Your task to perform on an android device: What's the weather going to be tomorrow? Image 0: 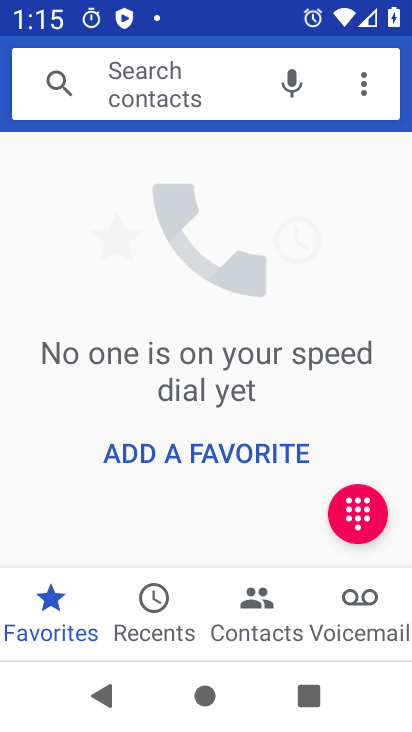
Step 0: press home button
Your task to perform on an android device: What's the weather going to be tomorrow? Image 1: 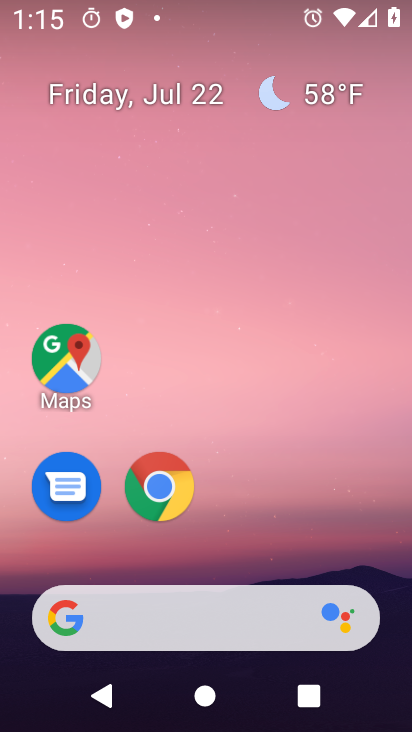
Step 1: click (255, 614)
Your task to perform on an android device: What's the weather going to be tomorrow? Image 2: 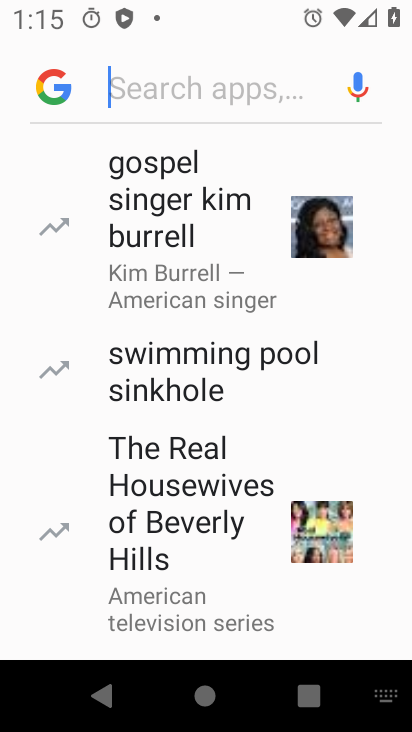
Step 2: type "weatger"
Your task to perform on an android device: What's the weather going to be tomorrow? Image 3: 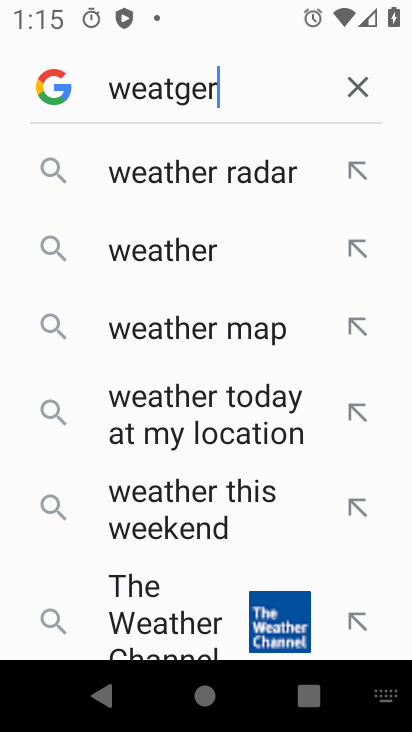
Step 3: click (247, 264)
Your task to perform on an android device: What's the weather going to be tomorrow? Image 4: 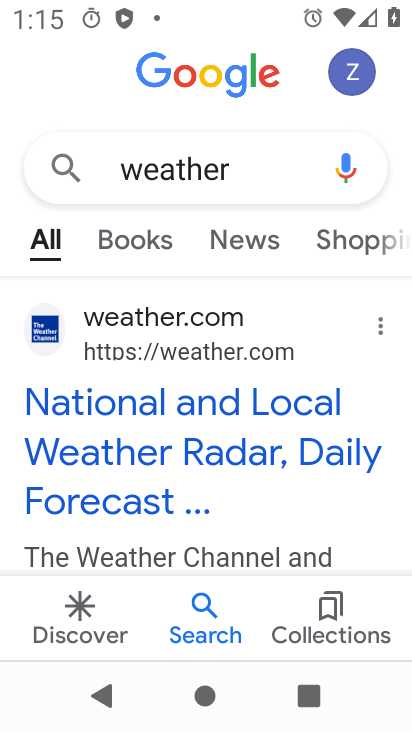
Step 4: task complete